Your task to perform on an android device: open a bookmark in the chrome app Image 0: 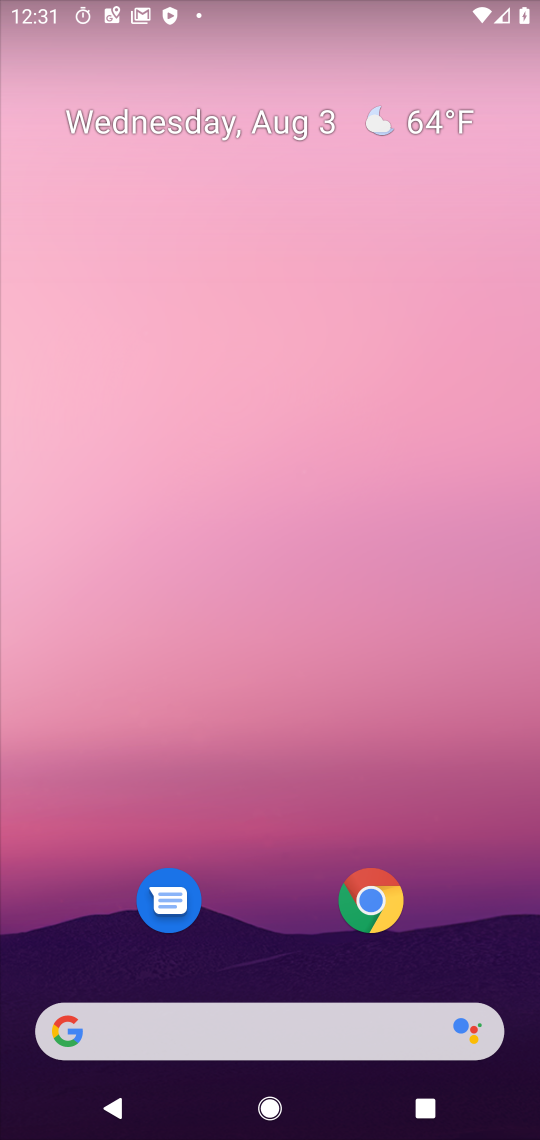
Step 0: drag from (292, 541) to (287, 290)
Your task to perform on an android device: open a bookmark in the chrome app Image 1: 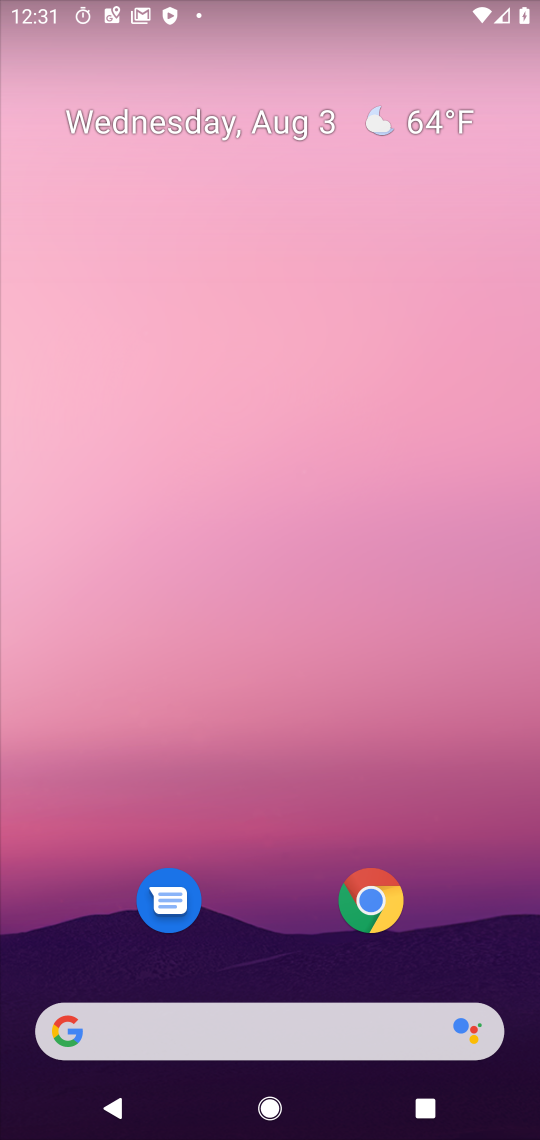
Step 1: drag from (287, 607) to (289, 265)
Your task to perform on an android device: open a bookmark in the chrome app Image 2: 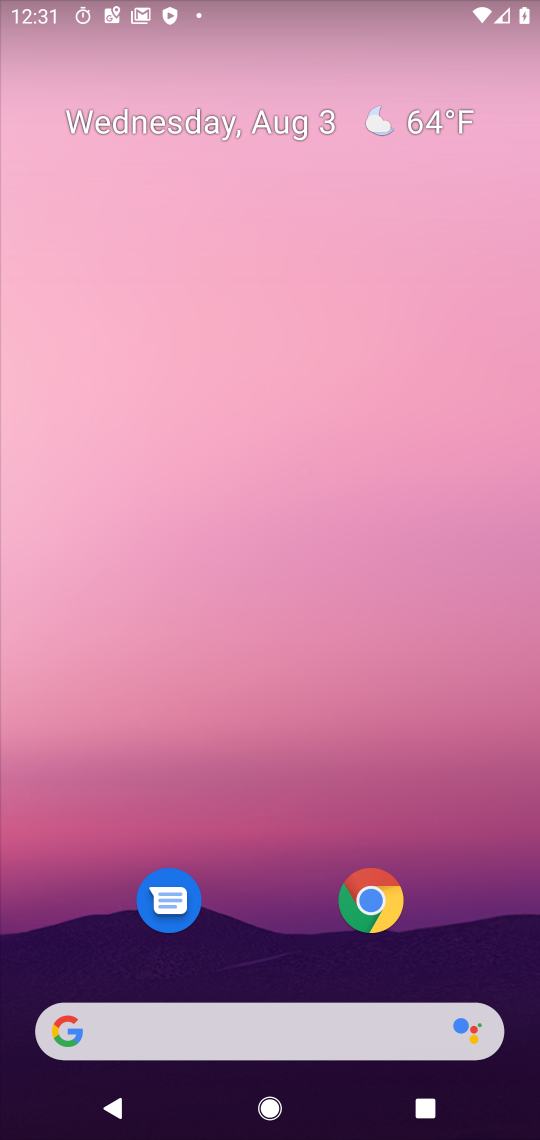
Step 2: drag from (268, 824) to (336, 124)
Your task to perform on an android device: open a bookmark in the chrome app Image 3: 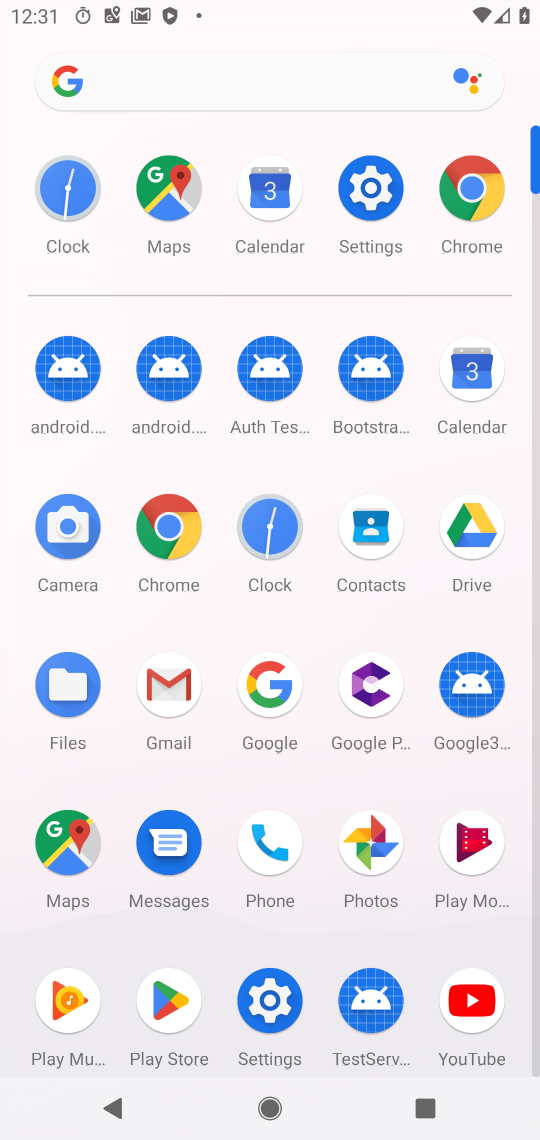
Step 3: click (169, 532)
Your task to perform on an android device: open a bookmark in the chrome app Image 4: 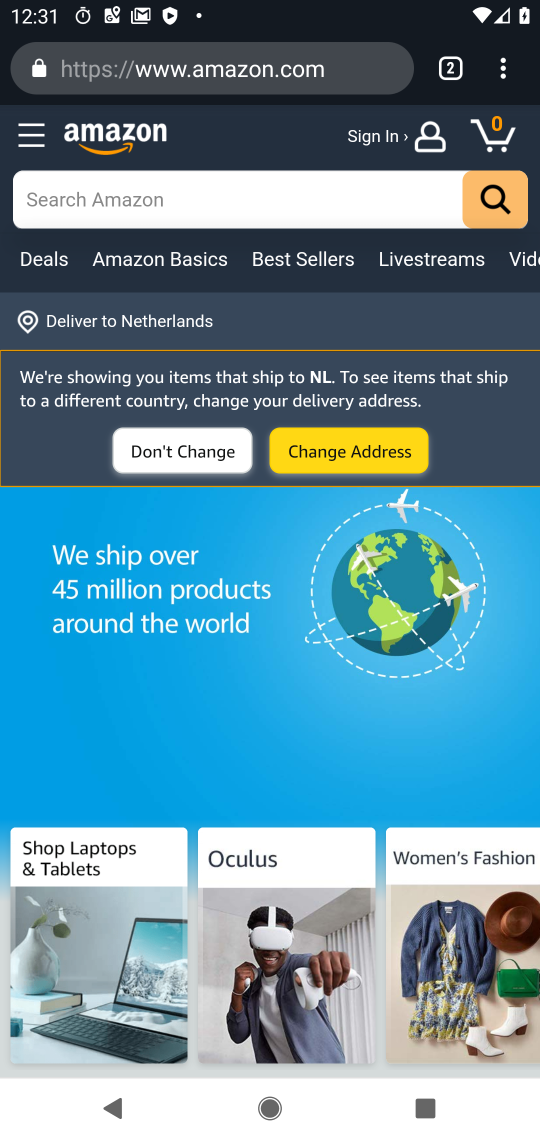
Step 4: drag from (498, 62) to (332, 342)
Your task to perform on an android device: open a bookmark in the chrome app Image 5: 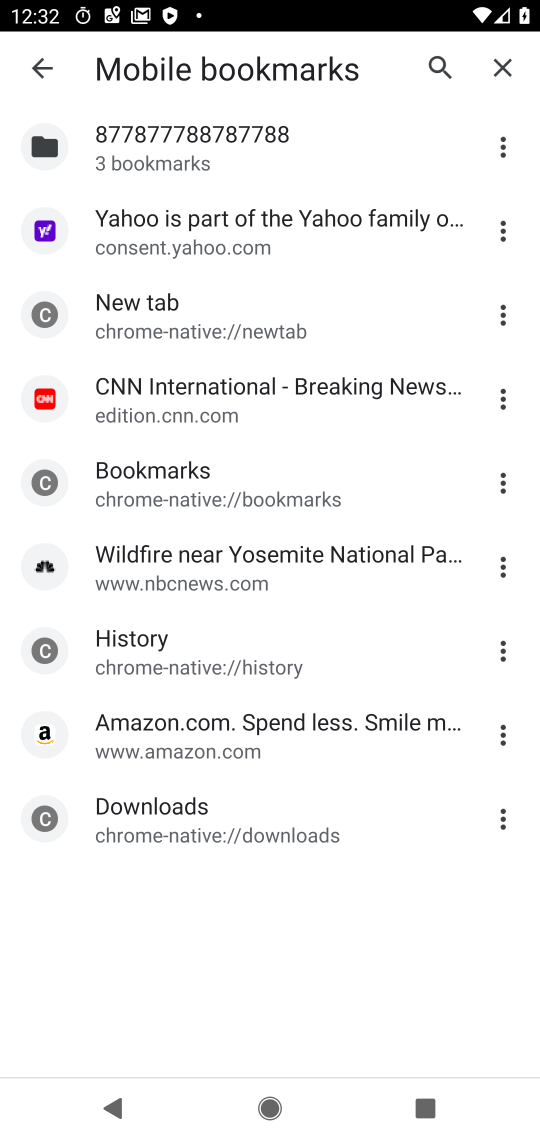
Step 5: click (160, 367)
Your task to perform on an android device: open a bookmark in the chrome app Image 6: 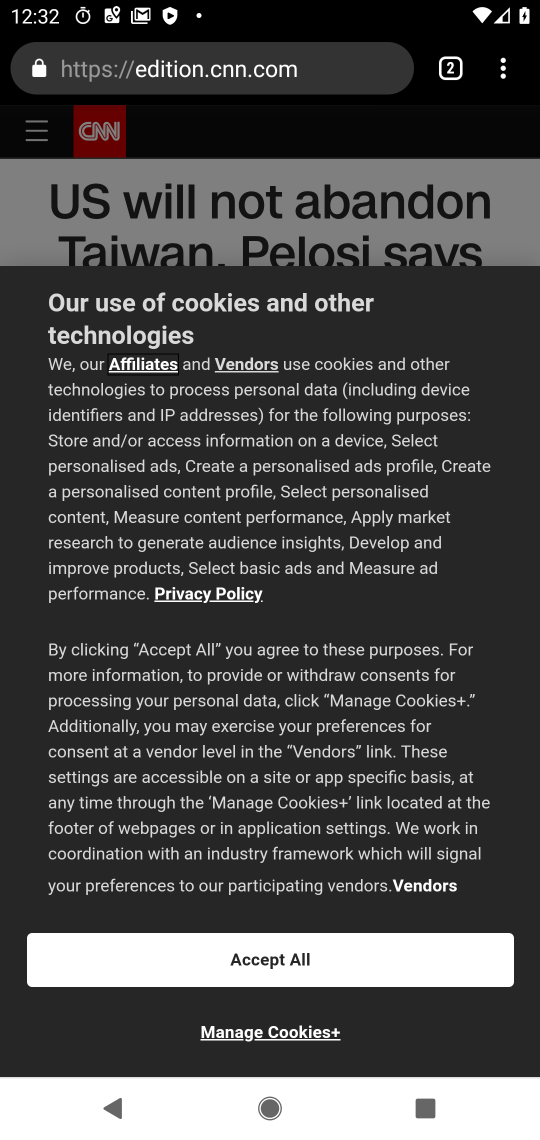
Step 6: task complete